Your task to perform on an android device: open app "Paramount+ | Peak Streaming" (install if not already installed), go to login, and select forgot password Image 0: 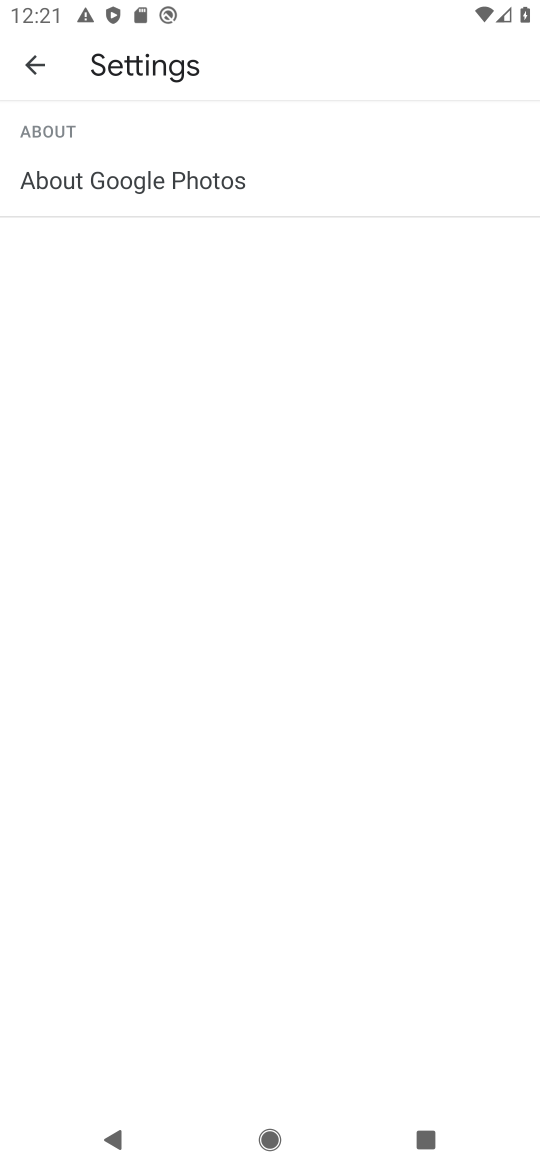
Step 0: click (19, 68)
Your task to perform on an android device: open app "Paramount+ | Peak Streaming" (install if not already installed), go to login, and select forgot password Image 1: 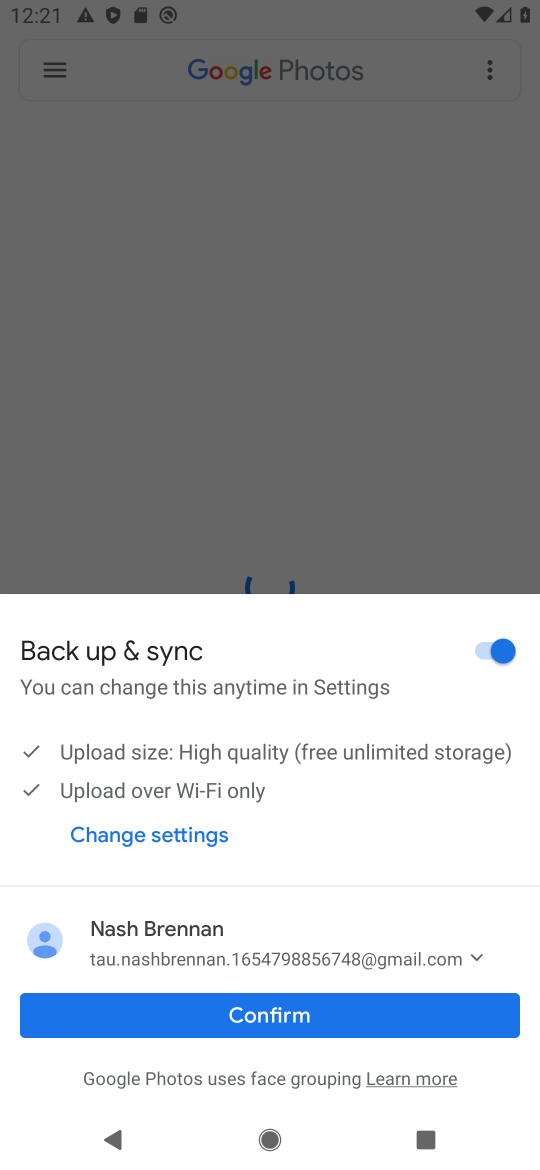
Step 1: press home button
Your task to perform on an android device: open app "Paramount+ | Peak Streaming" (install if not already installed), go to login, and select forgot password Image 2: 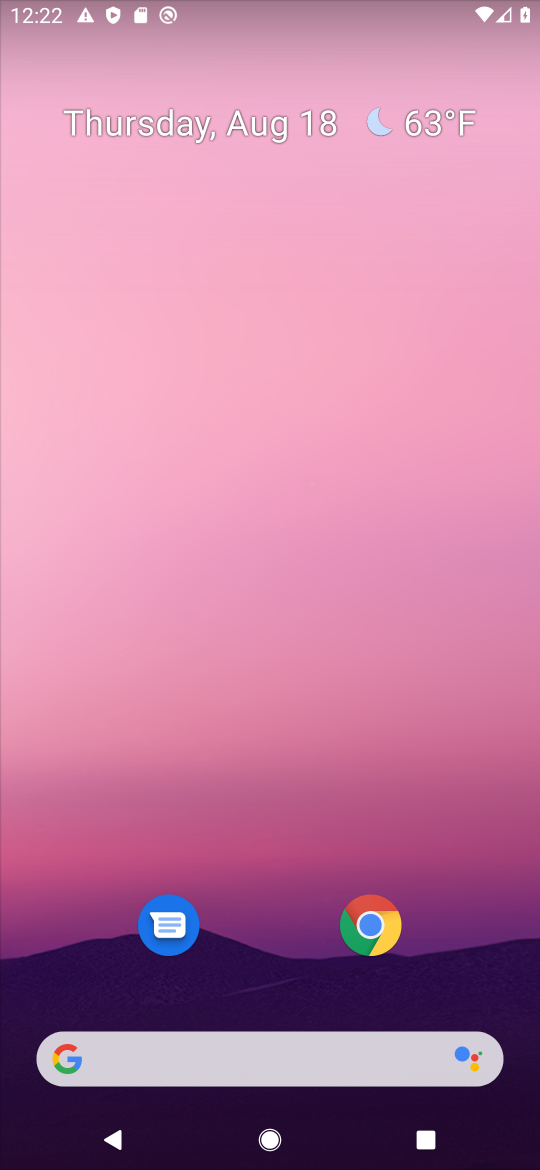
Step 2: drag from (257, 617) to (264, 279)
Your task to perform on an android device: open app "Paramount+ | Peak Streaming" (install if not already installed), go to login, and select forgot password Image 3: 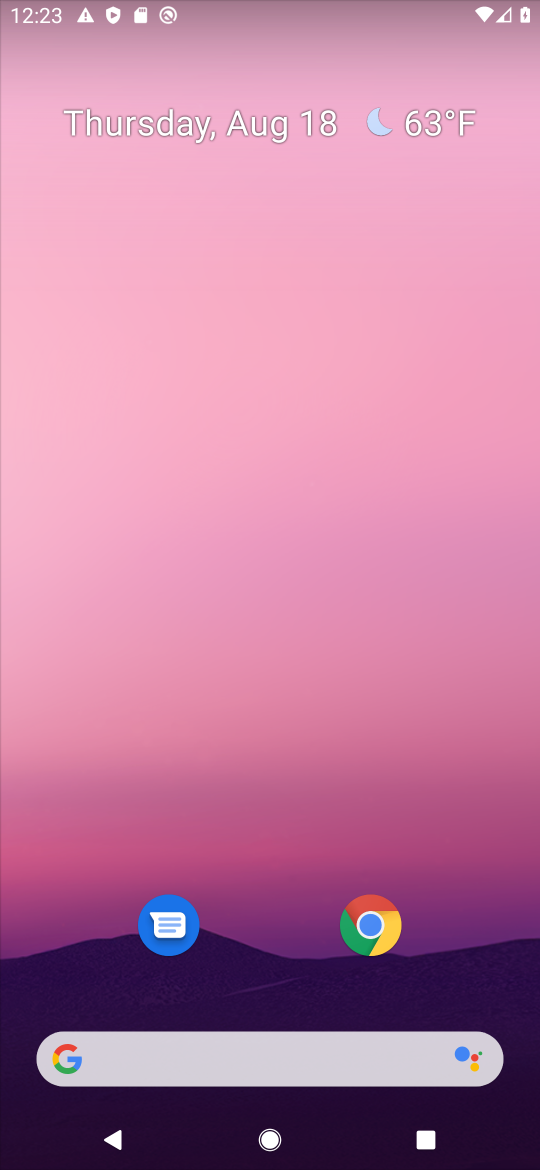
Step 3: drag from (260, 943) to (326, 134)
Your task to perform on an android device: open app "Paramount+ | Peak Streaming" (install if not already installed), go to login, and select forgot password Image 4: 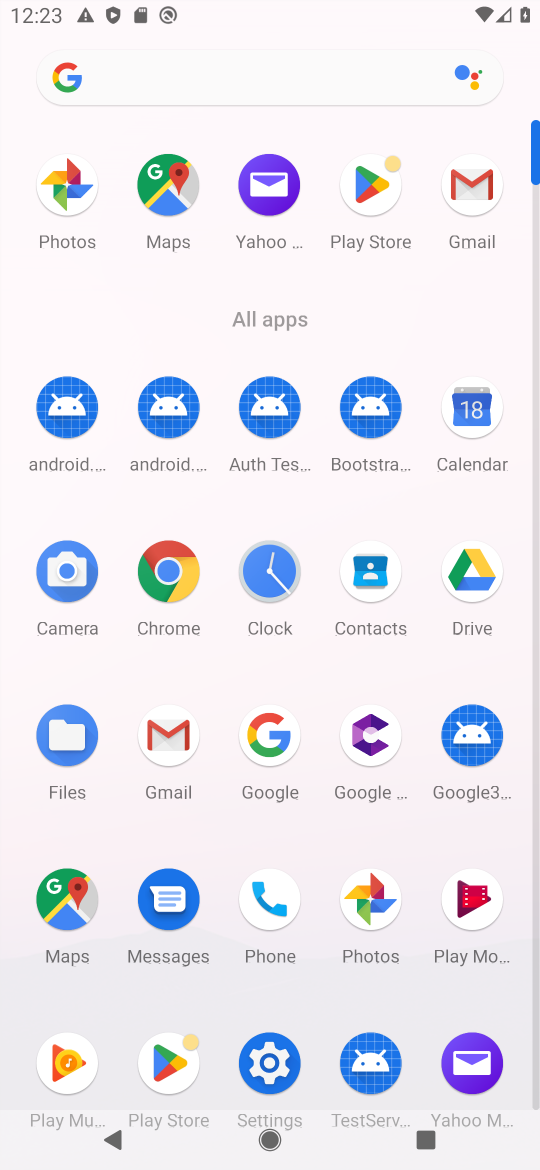
Step 4: click (166, 1059)
Your task to perform on an android device: open app "Paramount+ | Peak Streaming" (install if not already installed), go to login, and select forgot password Image 5: 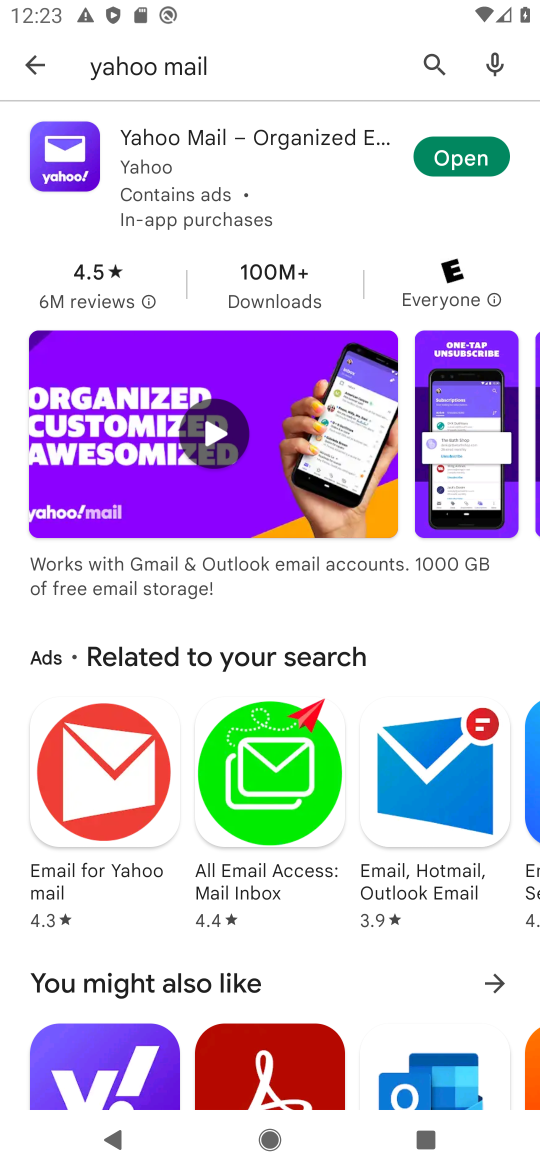
Step 5: click (28, 62)
Your task to perform on an android device: open app "Paramount+ | Peak Streaming" (install if not already installed), go to login, and select forgot password Image 6: 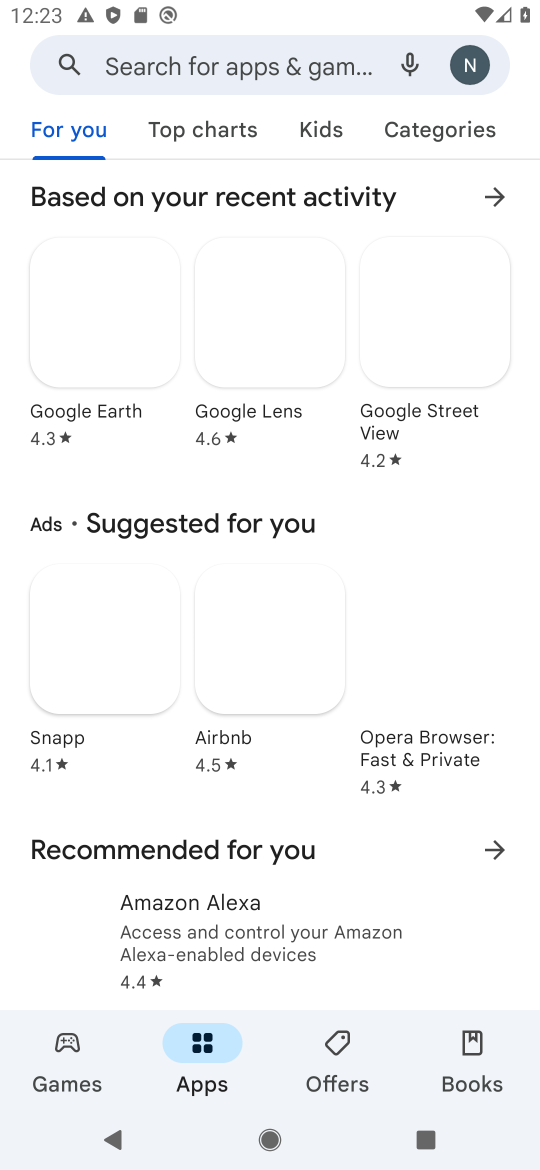
Step 6: click (166, 62)
Your task to perform on an android device: open app "Paramount+ | Peak Streaming" (install if not already installed), go to login, and select forgot password Image 7: 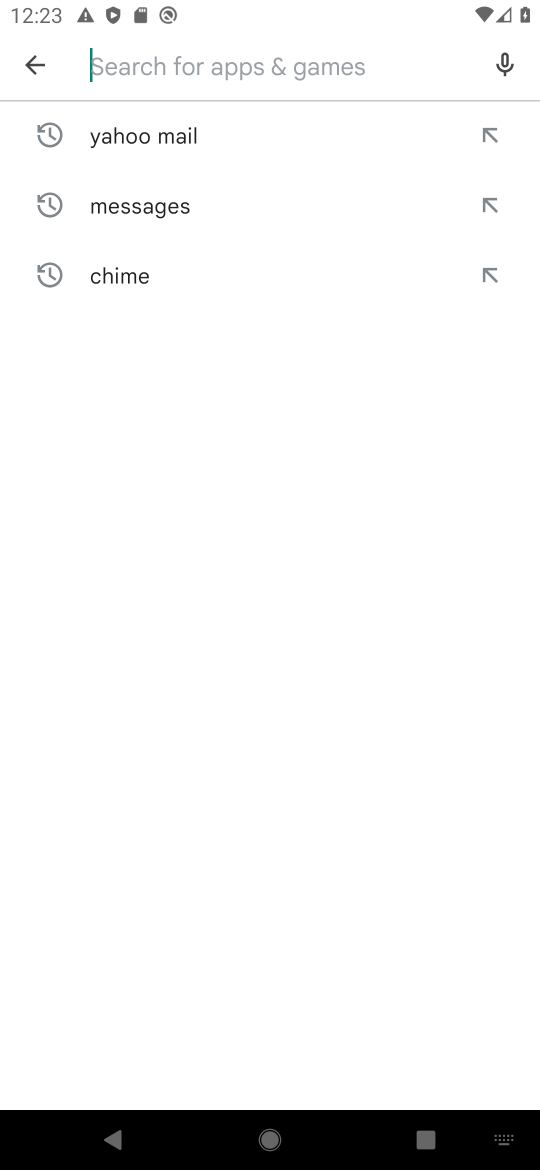
Step 7: type "Paramount+ | Peak Streaming"
Your task to perform on an android device: open app "Paramount+ | Peak Streaming" (install if not already installed), go to login, and select forgot password Image 8: 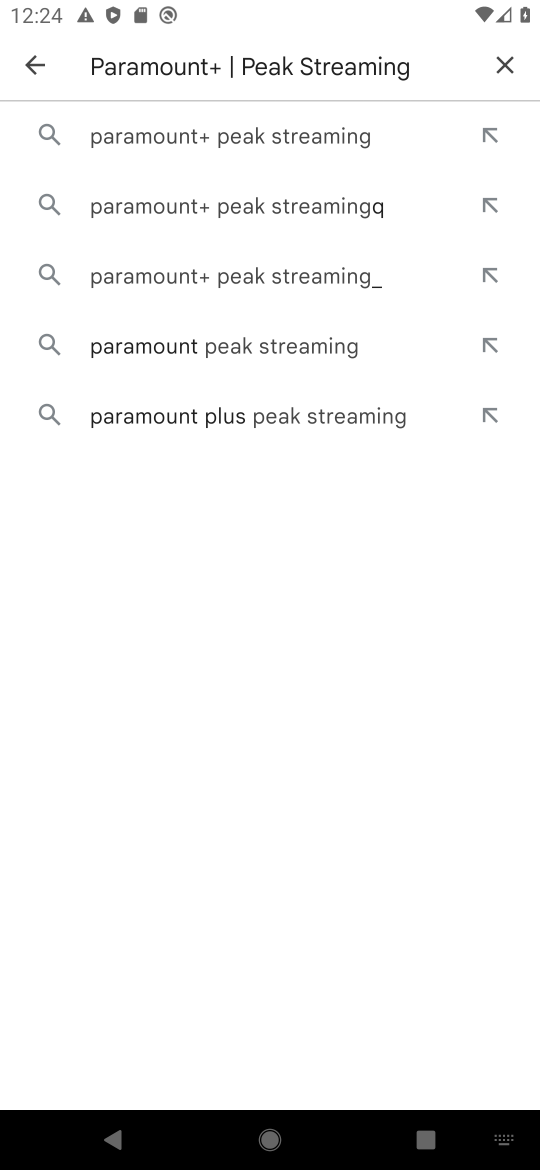
Step 8: click (286, 126)
Your task to perform on an android device: open app "Paramount+ | Peak Streaming" (install if not already installed), go to login, and select forgot password Image 9: 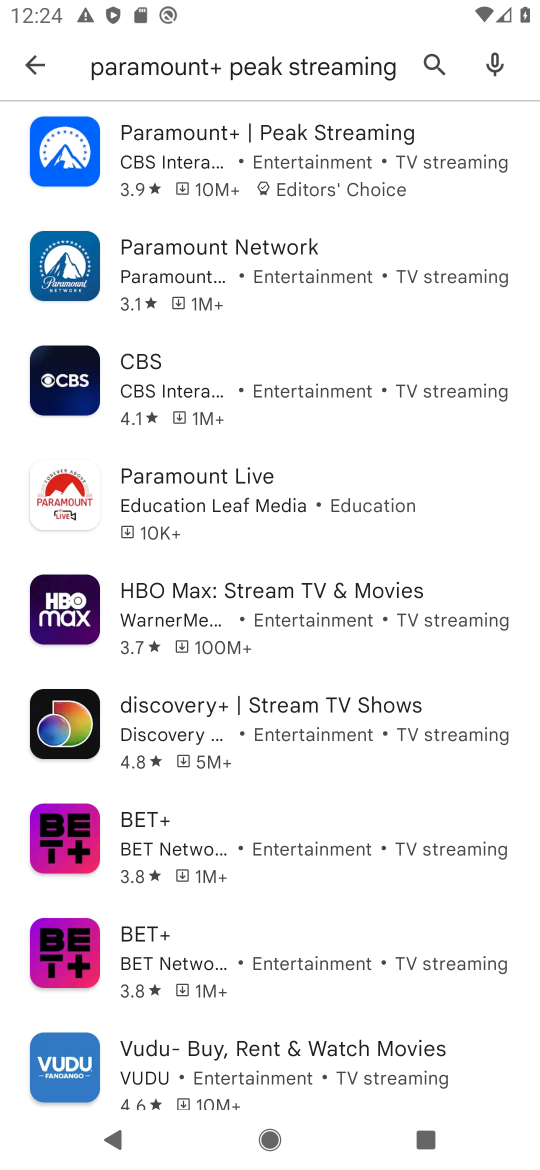
Step 9: click (212, 158)
Your task to perform on an android device: open app "Paramount+ | Peak Streaming" (install if not already installed), go to login, and select forgot password Image 10: 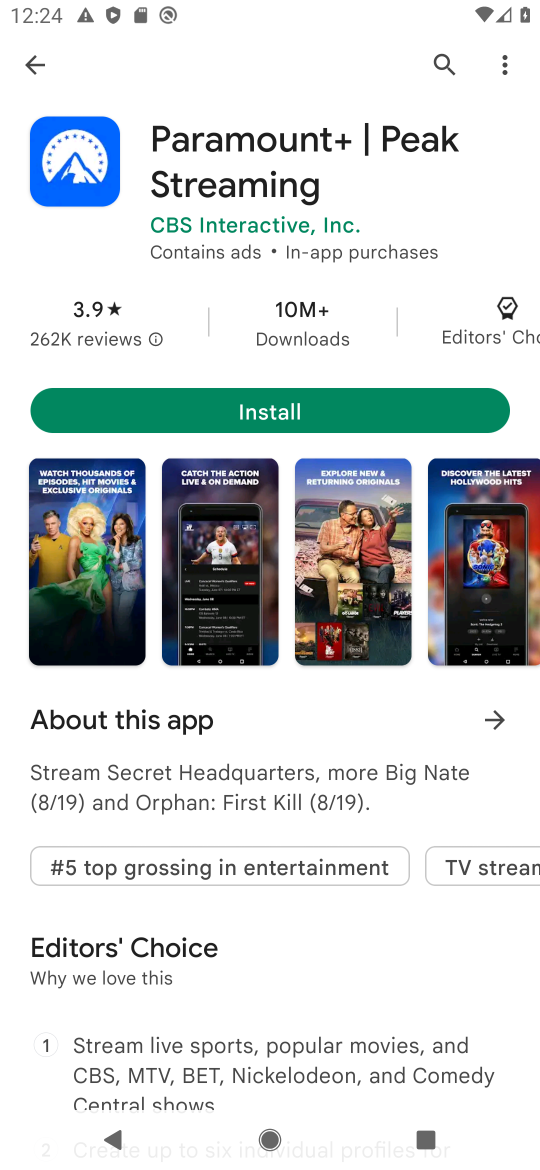
Step 10: click (270, 417)
Your task to perform on an android device: open app "Paramount+ | Peak Streaming" (install if not already installed), go to login, and select forgot password Image 11: 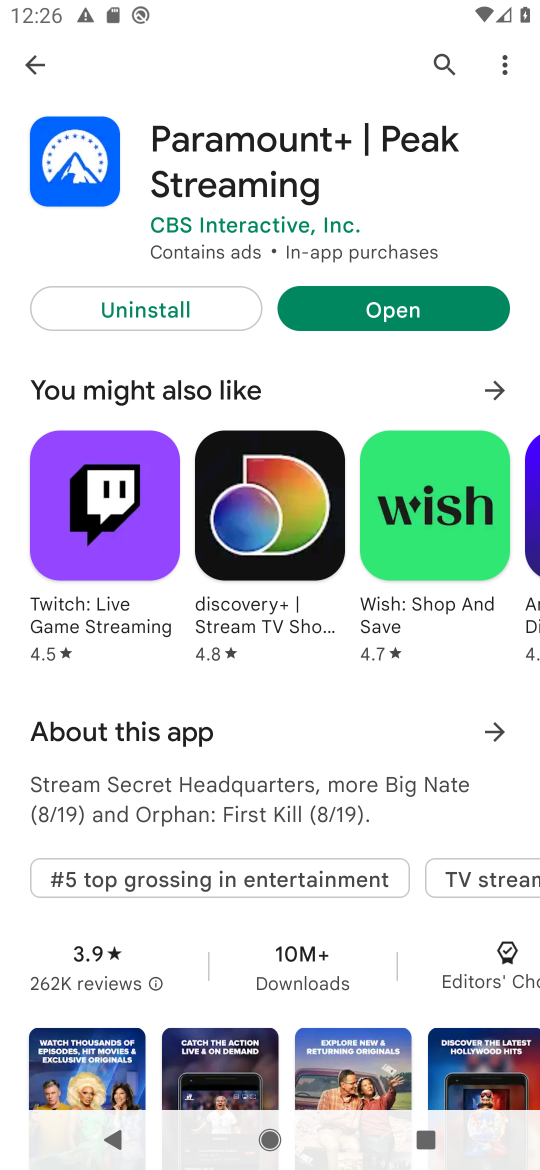
Step 11: click (333, 318)
Your task to perform on an android device: open app "Paramount+ | Peak Streaming" (install if not already installed), go to login, and select forgot password Image 12: 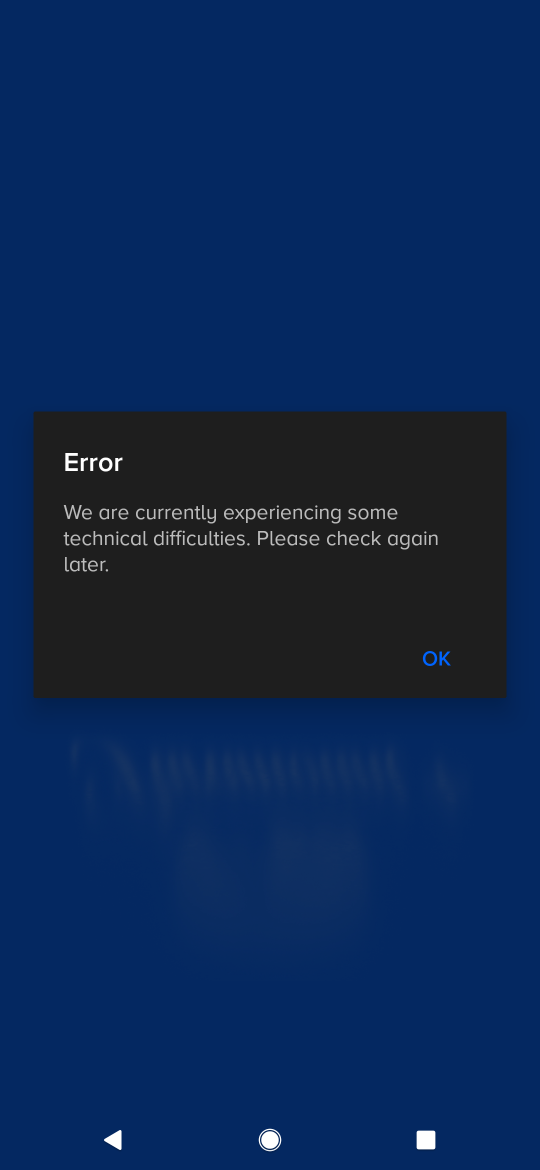
Step 12: task complete